Your task to perform on an android device: What's on my calendar tomorrow? Image 0: 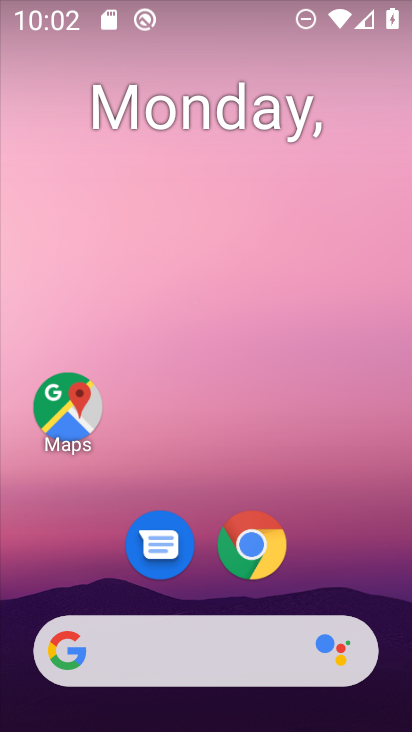
Step 0: drag from (24, 530) to (193, 135)
Your task to perform on an android device: What's on my calendar tomorrow? Image 1: 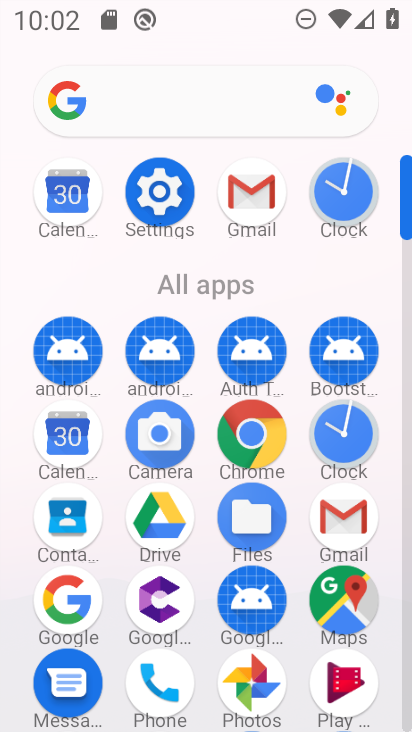
Step 1: click (65, 435)
Your task to perform on an android device: What's on my calendar tomorrow? Image 2: 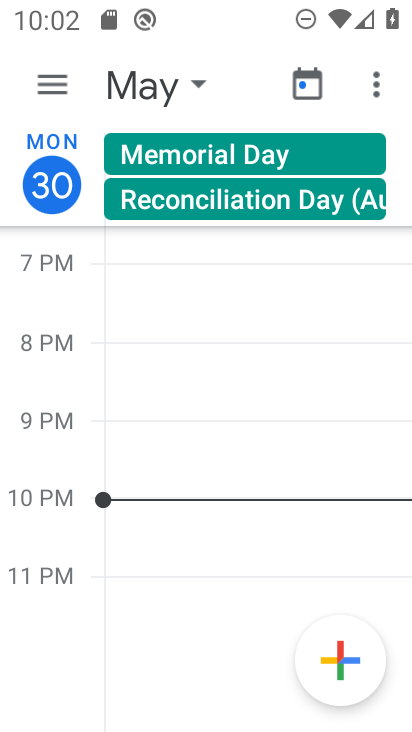
Step 2: click (144, 85)
Your task to perform on an android device: What's on my calendar tomorrow? Image 3: 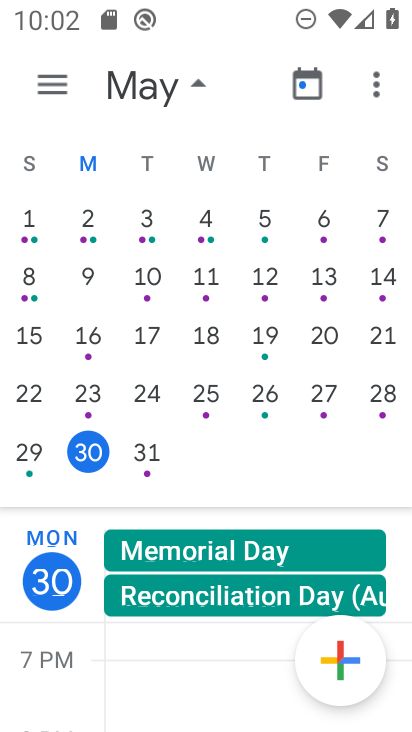
Step 3: click (149, 453)
Your task to perform on an android device: What's on my calendar tomorrow? Image 4: 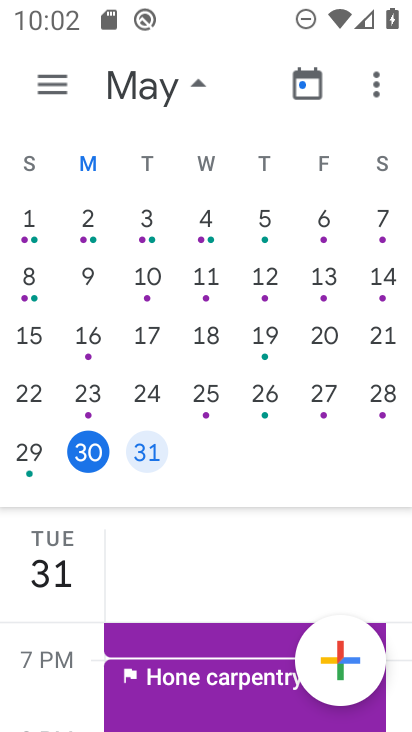
Step 4: click (69, 452)
Your task to perform on an android device: What's on my calendar tomorrow? Image 5: 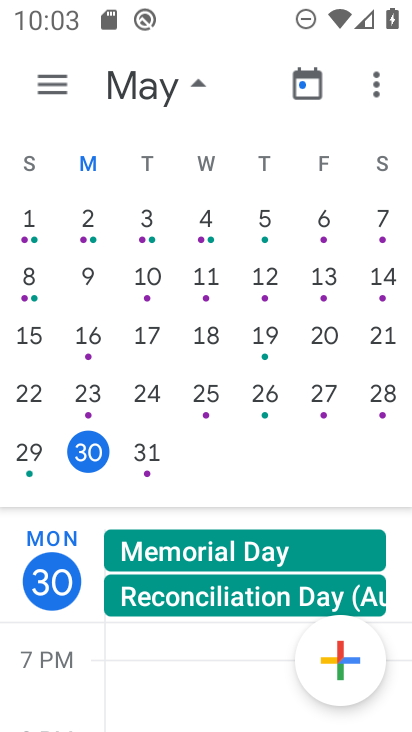
Step 5: task complete